Your task to perform on an android device: set default search engine in the chrome app Image 0: 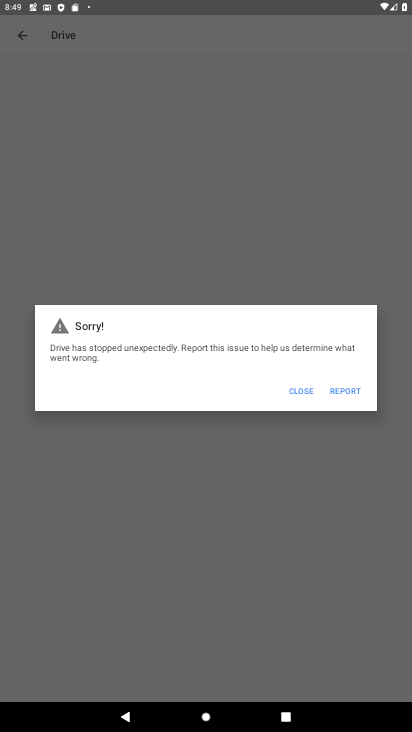
Step 0: press home button
Your task to perform on an android device: set default search engine in the chrome app Image 1: 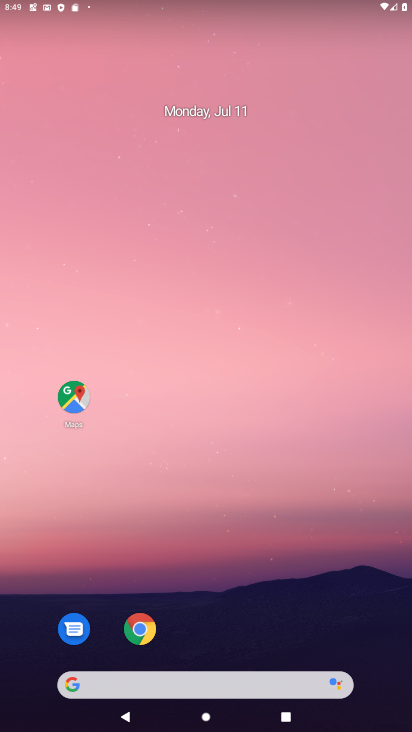
Step 1: click (137, 634)
Your task to perform on an android device: set default search engine in the chrome app Image 2: 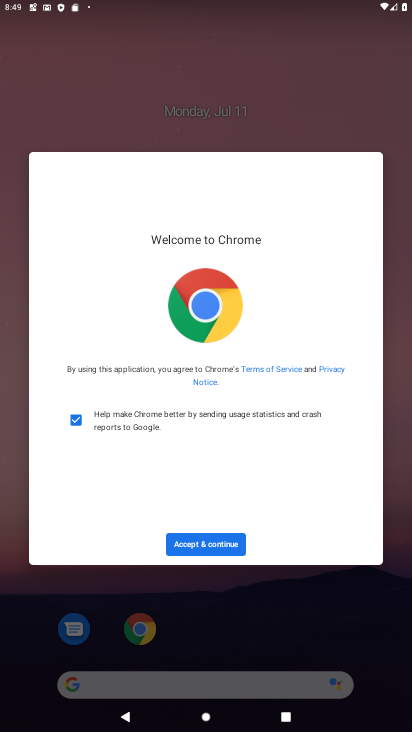
Step 2: click (199, 553)
Your task to perform on an android device: set default search engine in the chrome app Image 3: 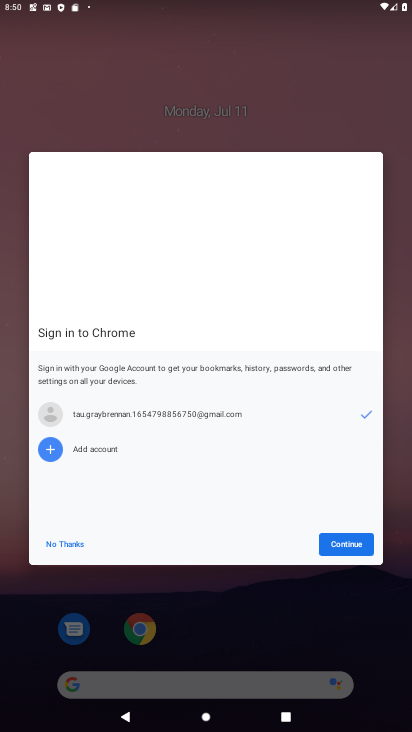
Step 3: click (204, 537)
Your task to perform on an android device: set default search engine in the chrome app Image 4: 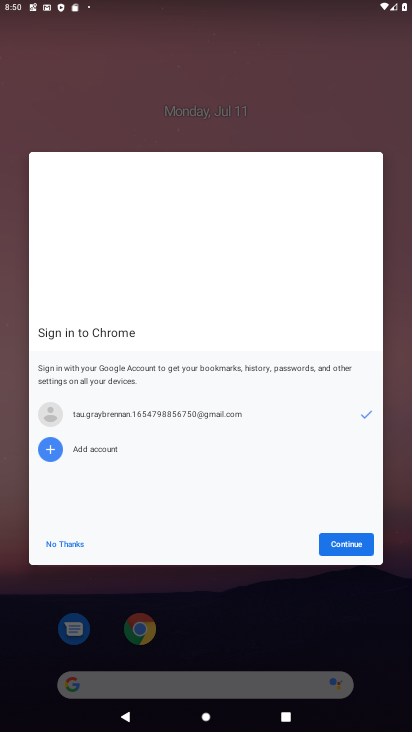
Step 4: click (352, 540)
Your task to perform on an android device: set default search engine in the chrome app Image 5: 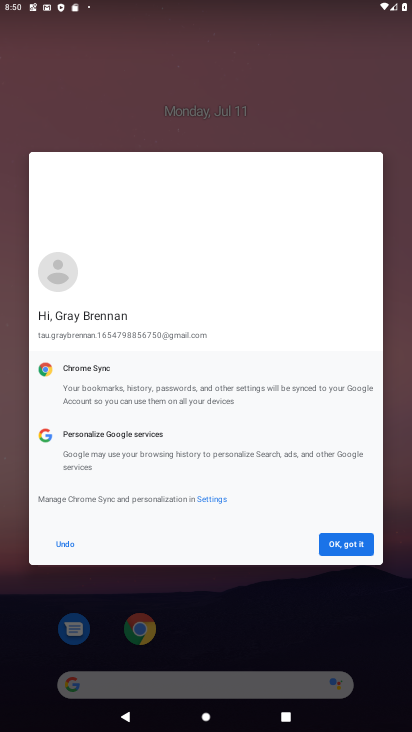
Step 5: click (344, 536)
Your task to perform on an android device: set default search engine in the chrome app Image 6: 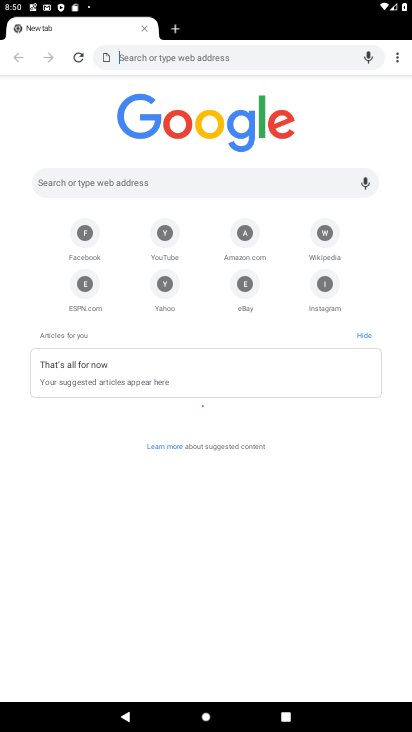
Step 6: click (402, 54)
Your task to perform on an android device: set default search engine in the chrome app Image 7: 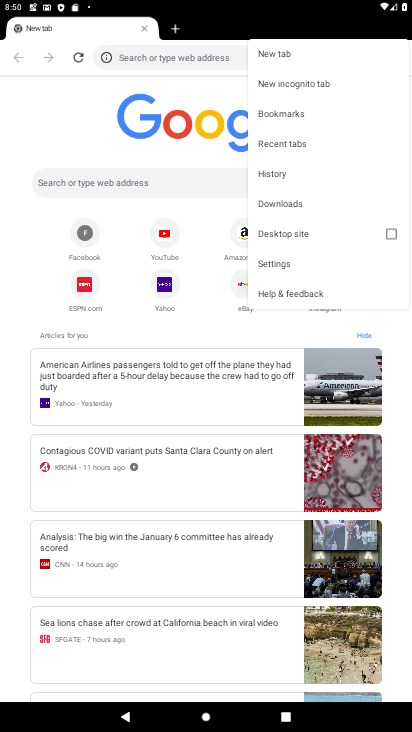
Step 7: click (276, 262)
Your task to perform on an android device: set default search engine in the chrome app Image 8: 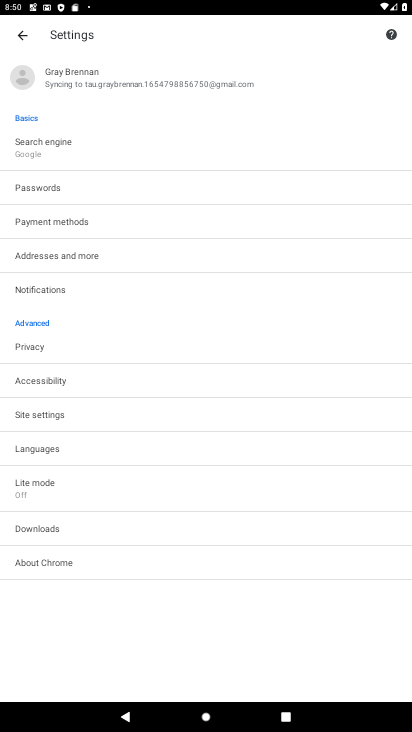
Step 8: click (114, 142)
Your task to perform on an android device: set default search engine in the chrome app Image 9: 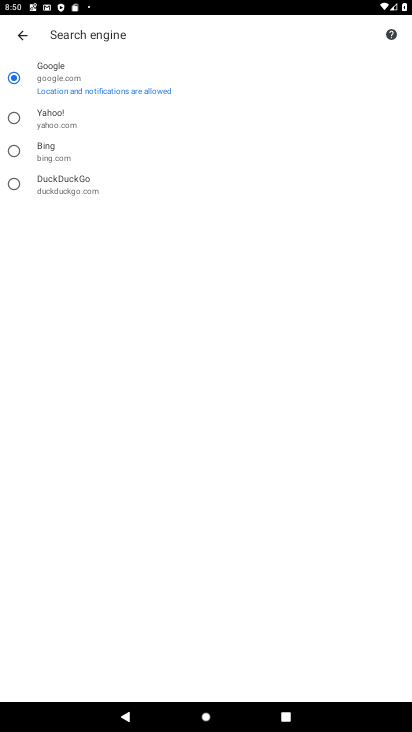
Step 9: click (55, 122)
Your task to perform on an android device: set default search engine in the chrome app Image 10: 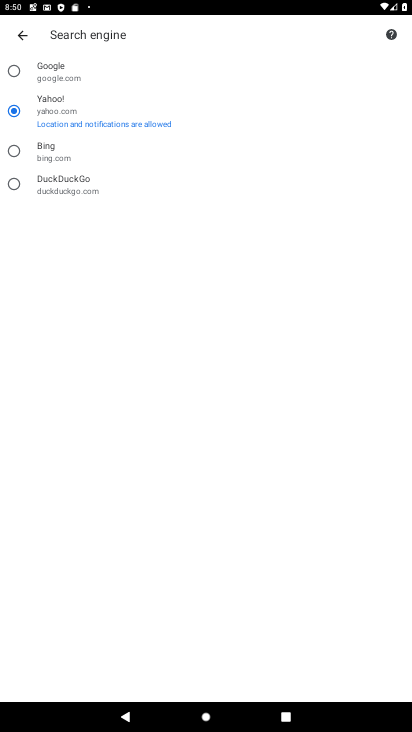
Step 10: task complete